Your task to perform on an android device: Open notification settings Image 0: 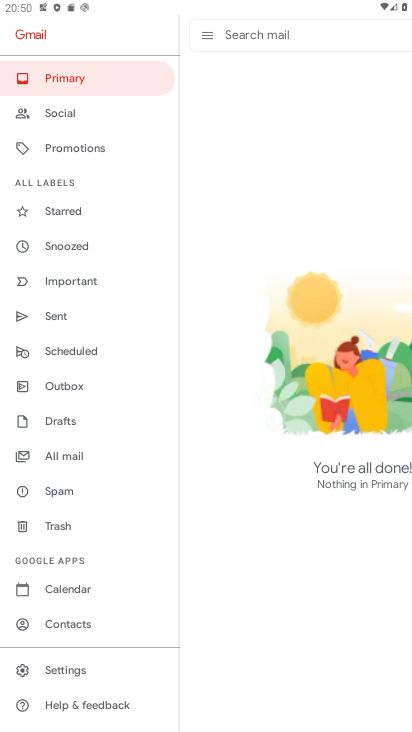
Step 0: press home button
Your task to perform on an android device: Open notification settings Image 1: 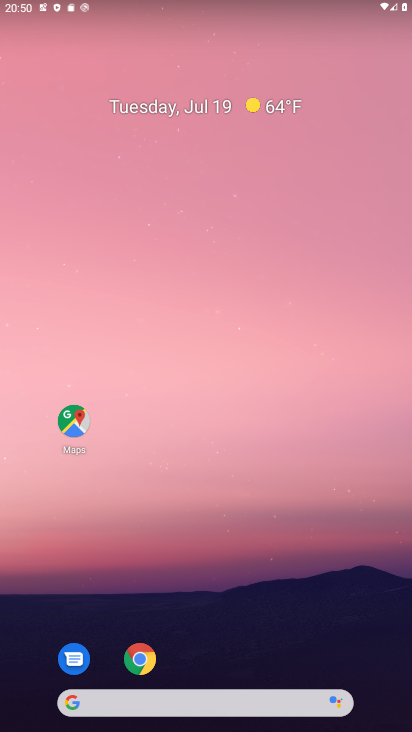
Step 1: drag from (207, 650) to (244, 131)
Your task to perform on an android device: Open notification settings Image 2: 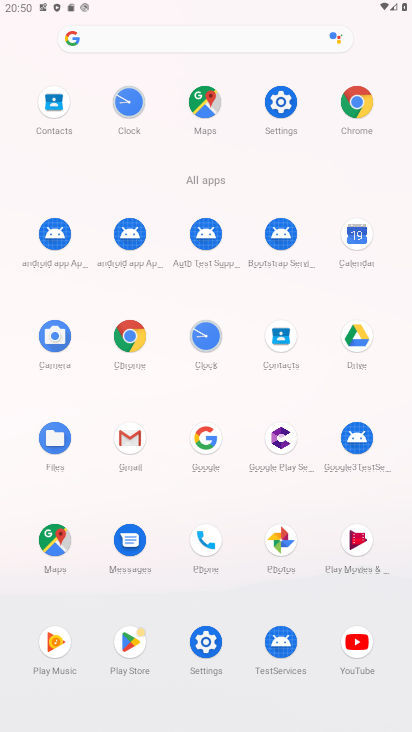
Step 2: click (212, 638)
Your task to perform on an android device: Open notification settings Image 3: 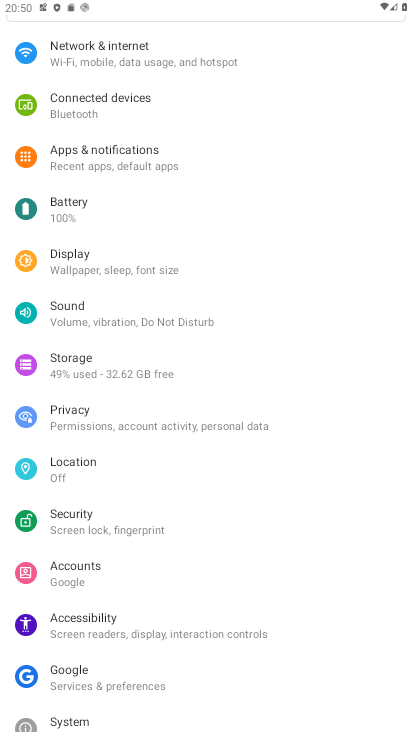
Step 3: click (152, 173)
Your task to perform on an android device: Open notification settings Image 4: 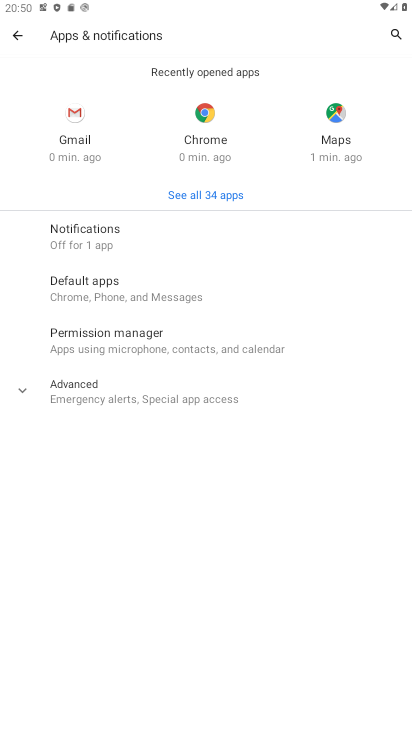
Step 4: task complete